Your task to perform on an android device: Open notification settings Image 0: 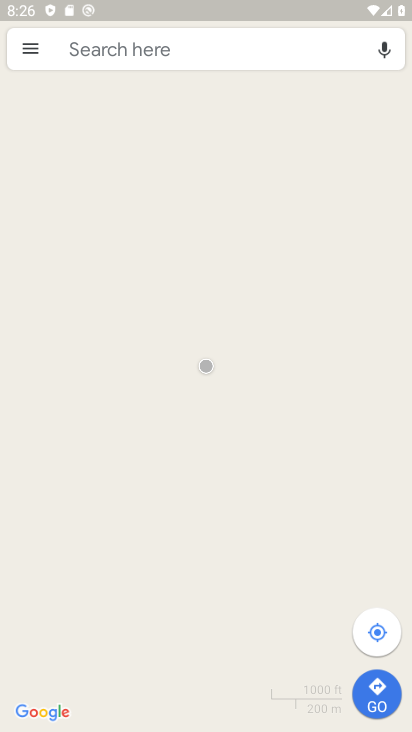
Step 0: press home button
Your task to perform on an android device: Open notification settings Image 1: 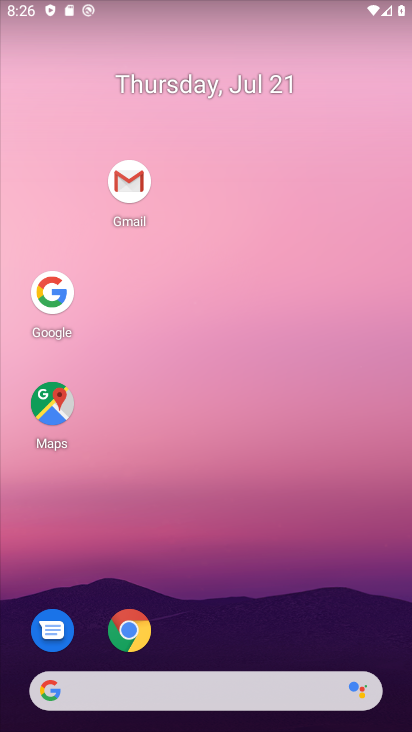
Step 1: drag from (265, 635) to (293, 272)
Your task to perform on an android device: Open notification settings Image 2: 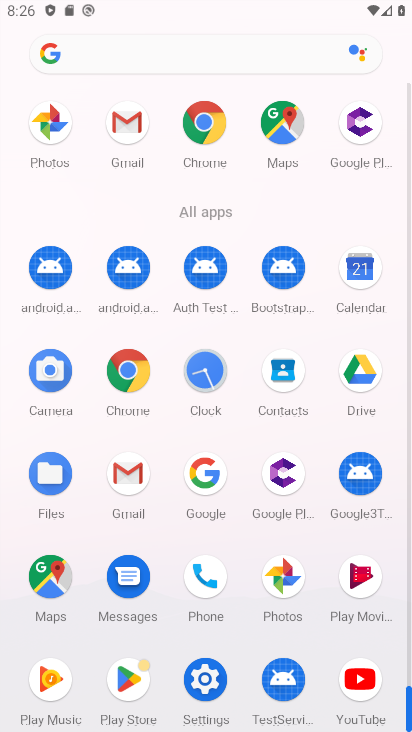
Step 2: drag from (219, 669) to (81, 228)
Your task to perform on an android device: Open notification settings Image 3: 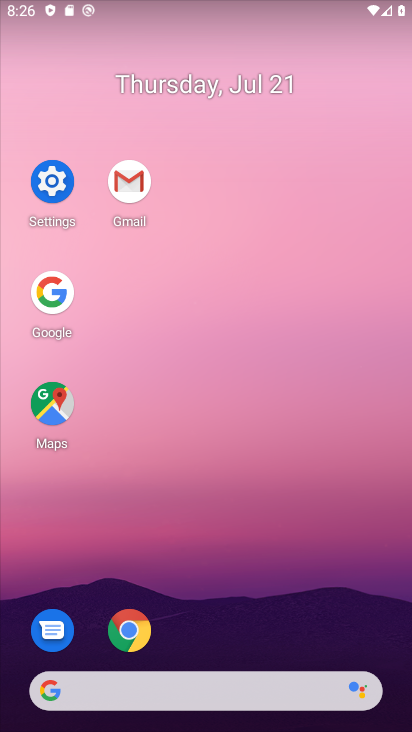
Step 3: click (58, 193)
Your task to perform on an android device: Open notification settings Image 4: 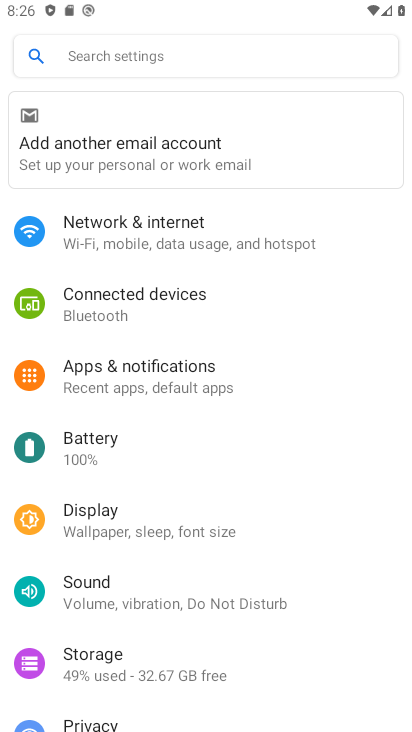
Step 4: click (209, 357)
Your task to perform on an android device: Open notification settings Image 5: 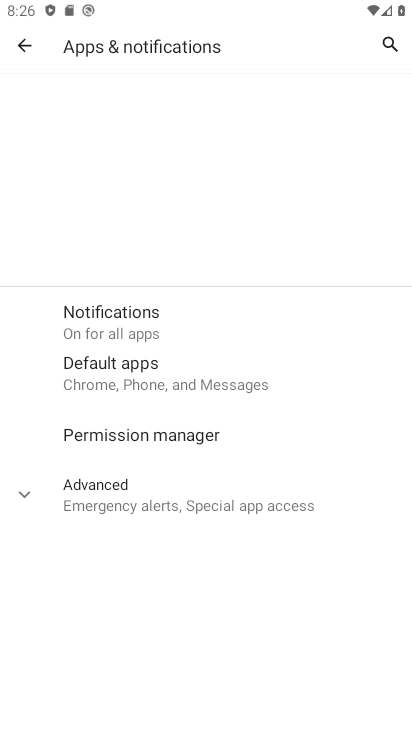
Step 5: task complete